Your task to perform on an android device: turn on the 24-hour format for clock Image 0: 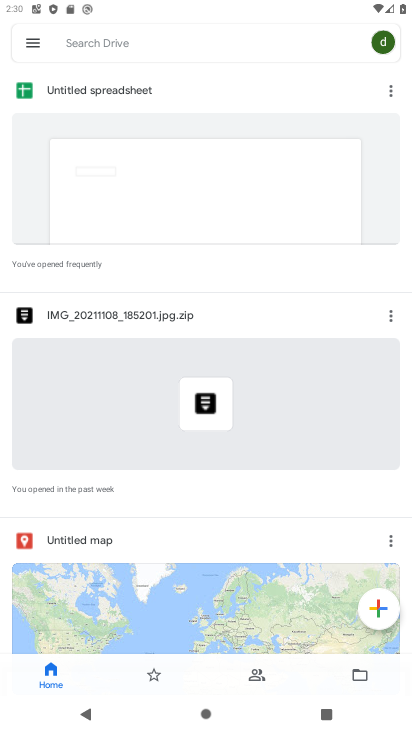
Step 0: press home button
Your task to perform on an android device: turn on the 24-hour format for clock Image 1: 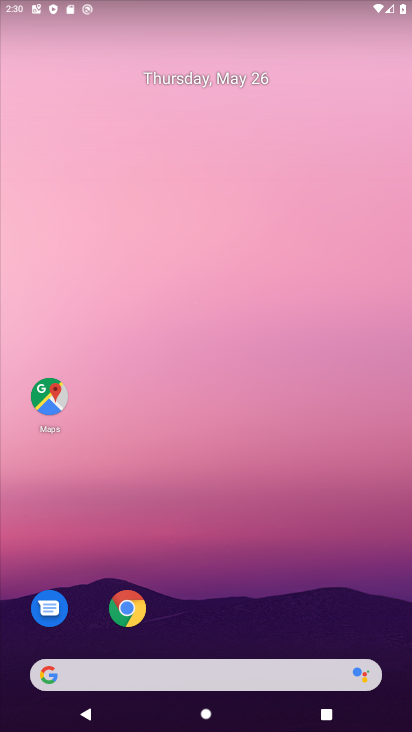
Step 1: drag from (346, 541) to (383, 68)
Your task to perform on an android device: turn on the 24-hour format for clock Image 2: 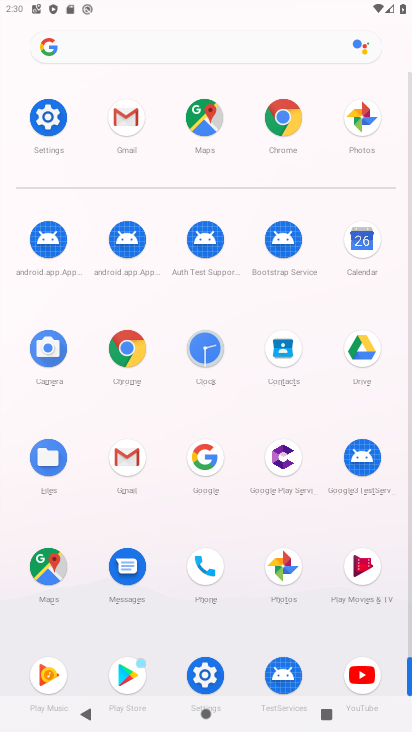
Step 2: click (206, 347)
Your task to perform on an android device: turn on the 24-hour format for clock Image 3: 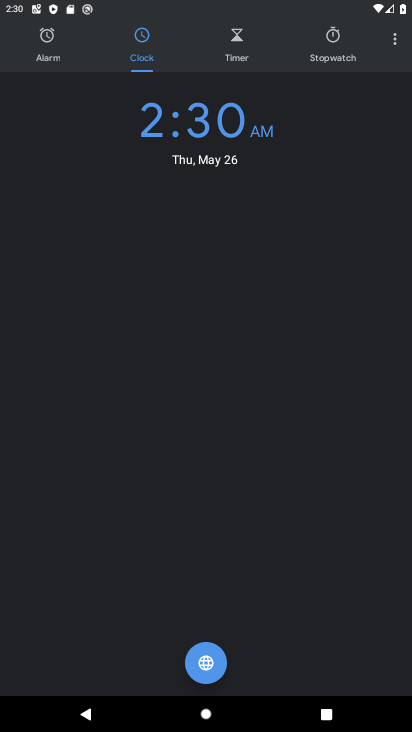
Step 3: click (396, 34)
Your task to perform on an android device: turn on the 24-hour format for clock Image 4: 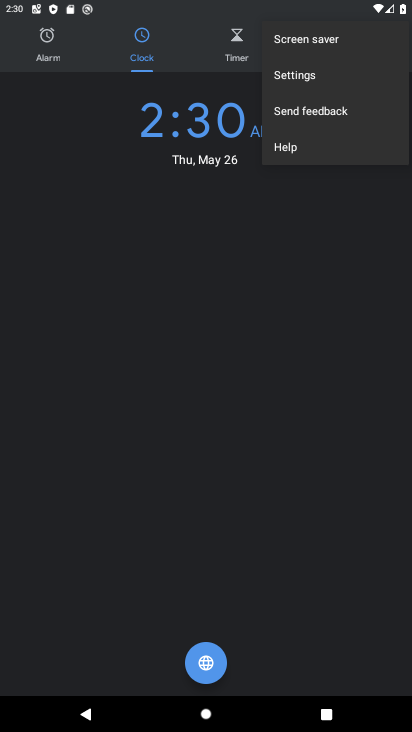
Step 4: click (312, 84)
Your task to perform on an android device: turn on the 24-hour format for clock Image 5: 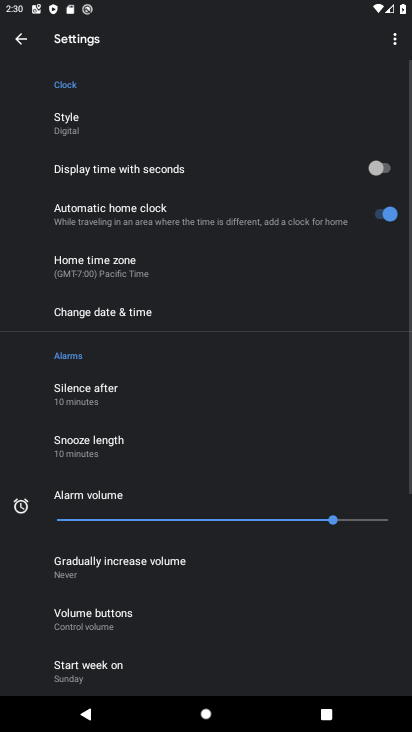
Step 5: click (86, 322)
Your task to perform on an android device: turn on the 24-hour format for clock Image 6: 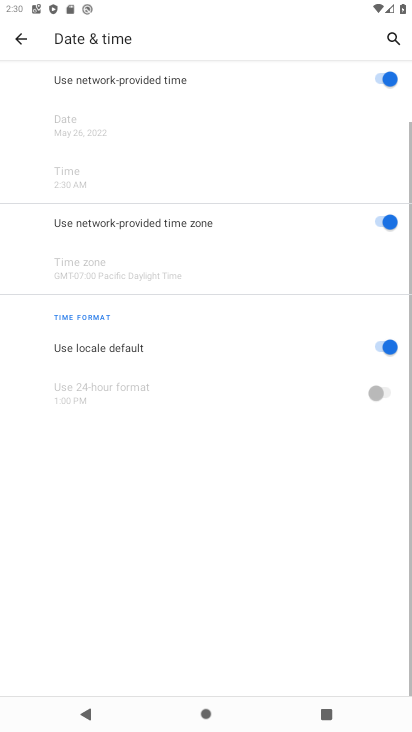
Step 6: task complete